Your task to perform on an android device: Is it going to rain this weekend? Image 0: 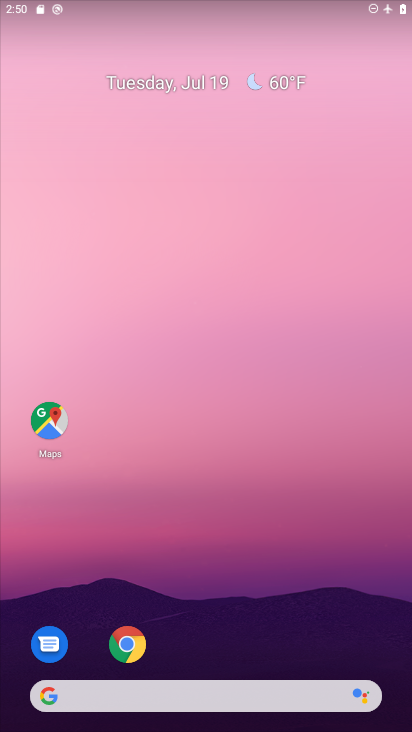
Step 0: drag from (228, 665) to (248, 126)
Your task to perform on an android device: Is it going to rain this weekend? Image 1: 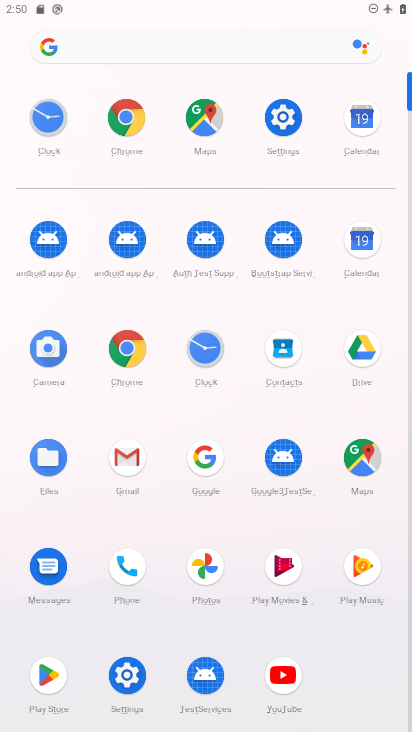
Step 1: click (208, 462)
Your task to perform on an android device: Is it going to rain this weekend? Image 2: 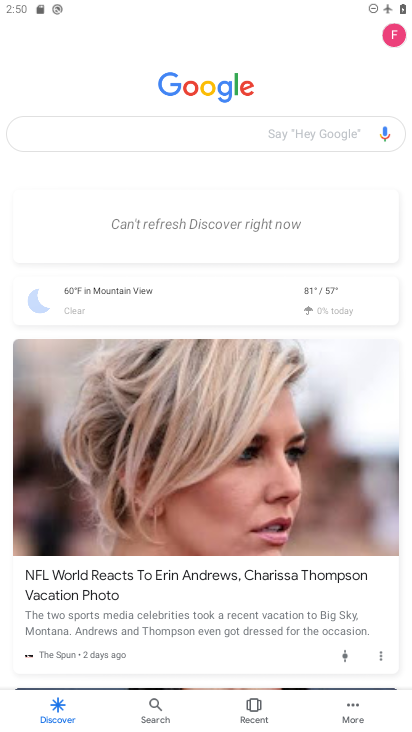
Step 2: click (247, 141)
Your task to perform on an android device: Is it going to rain this weekend? Image 3: 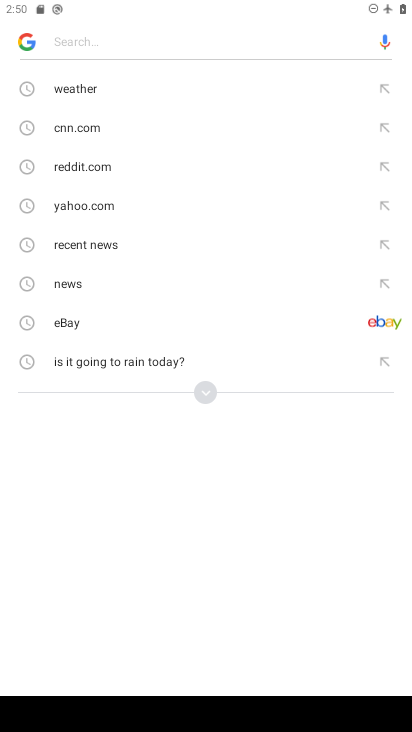
Step 3: click (76, 92)
Your task to perform on an android device: Is it going to rain this weekend? Image 4: 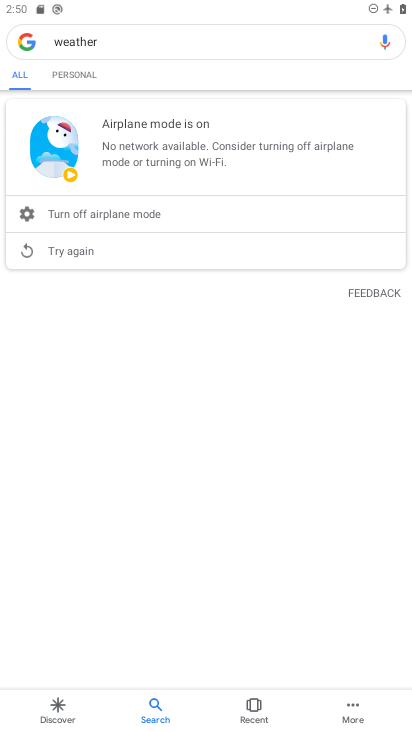
Step 4: click (85, 260)
Your task to perform on an android device: Is it going to rain this weekend? Image 5: 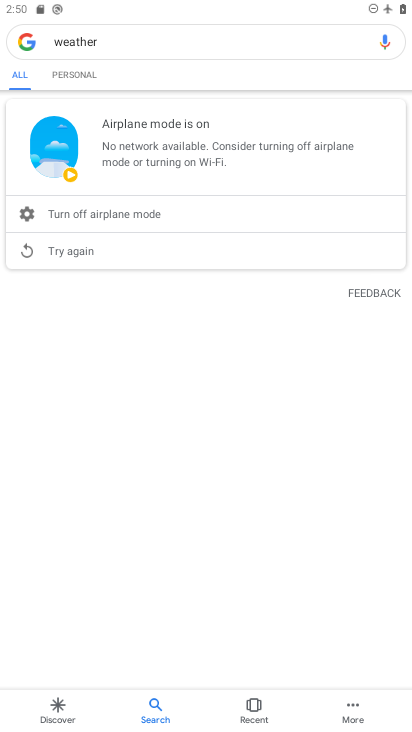
Step 5: task complete